Your task to perform on an android device: add a label to a message in the gmail app Image 0: 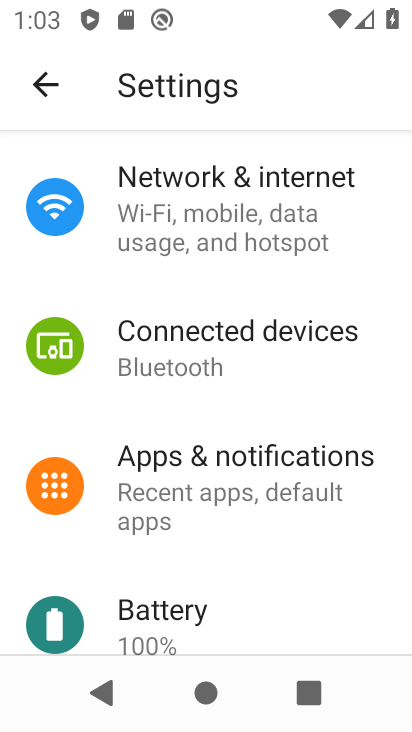
Step 0: press home button
Your task to perform on an android device: add a label to a message in the gmail app Image 1: 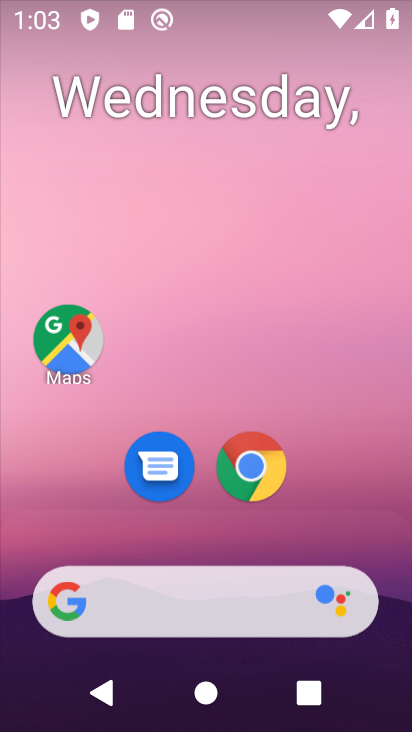
Step 1: drag from (279, 524) to (355, 33)
Your task to perform on an android device: add a label to a message in the gmail app Image 2: 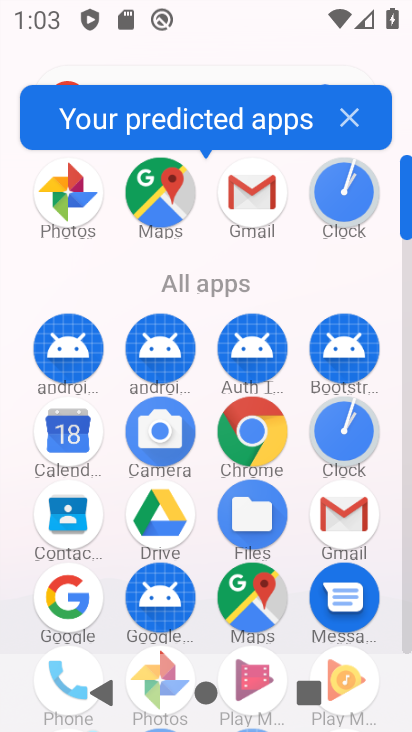
Step 2: click (355, 512)
Your task to perform on an android device: add a label to a message in the gmail app Image 3: 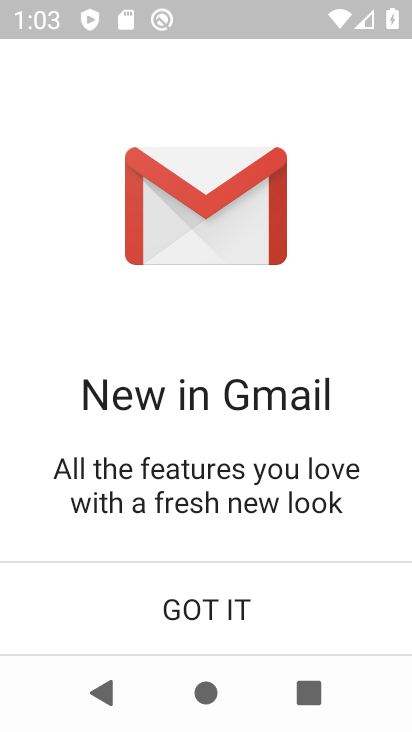
Step 3: click (215, 617)
Your task to perform on an android device: add a label to a message in the gmail app Image 4: 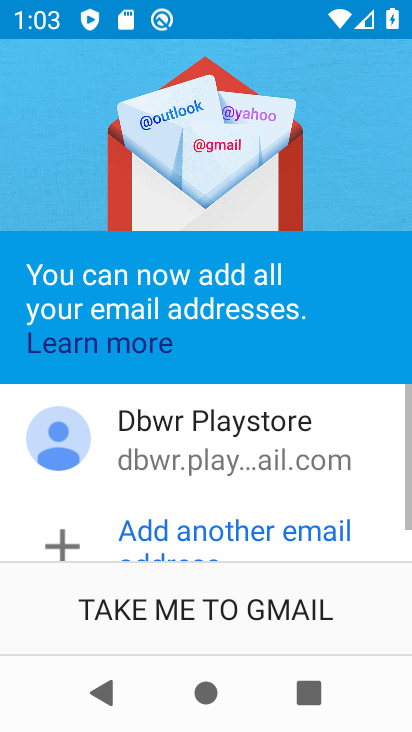
Step 4: click (219, 612)
Your task to perform on an android device: add a label to a message in the gmail app Image 5: 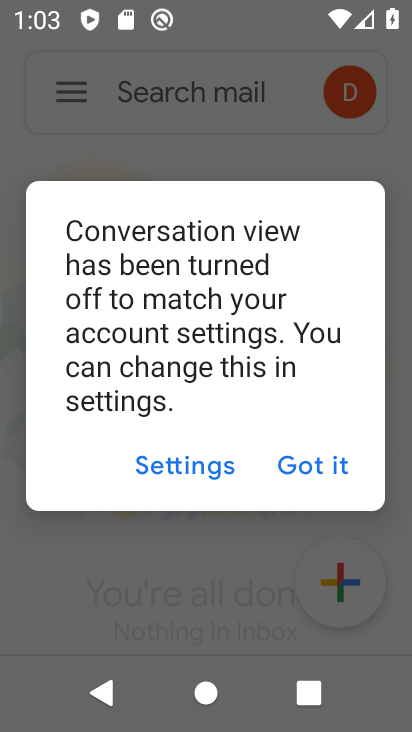
Step 5: click (318, 467)
Your task to perform on an android device: add a label to a message in the gmail app Image 6: 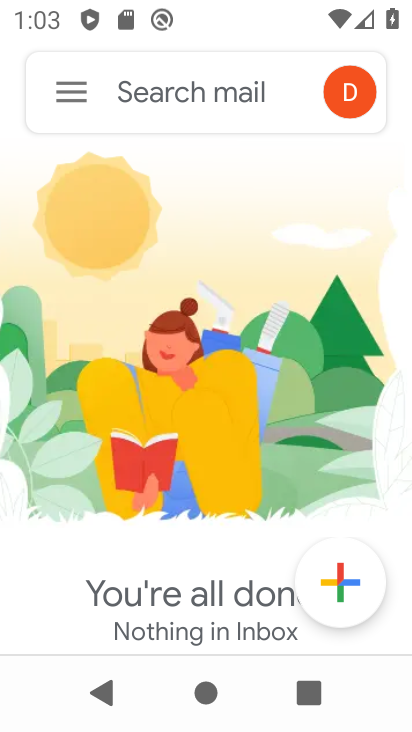
Step 6: click (65, 100)
Your task to perform on an android device: add a label to a message in the gmail app Image 7: 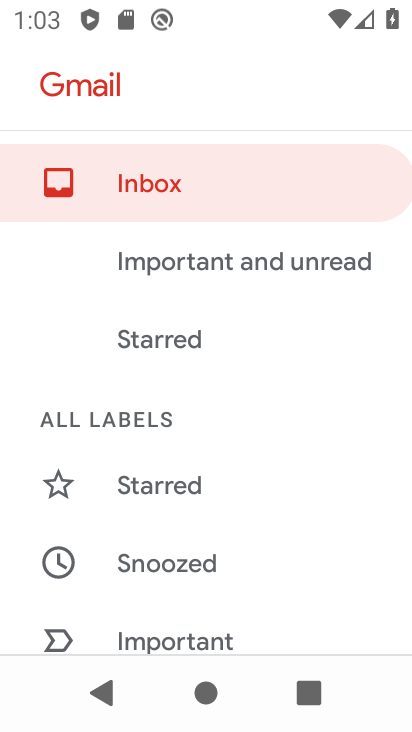
Step 7: drag from (186, 534) to (173, 116)
Your task to perform on an android device: add a label to a message in the gmail app Image 8: 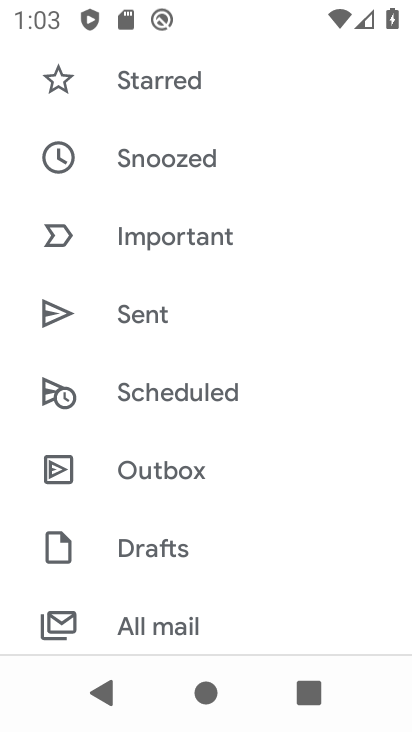
Step 8: click (191, 620)
Your task to perform on an android device: add a label to a message in the gmail app Image 9: 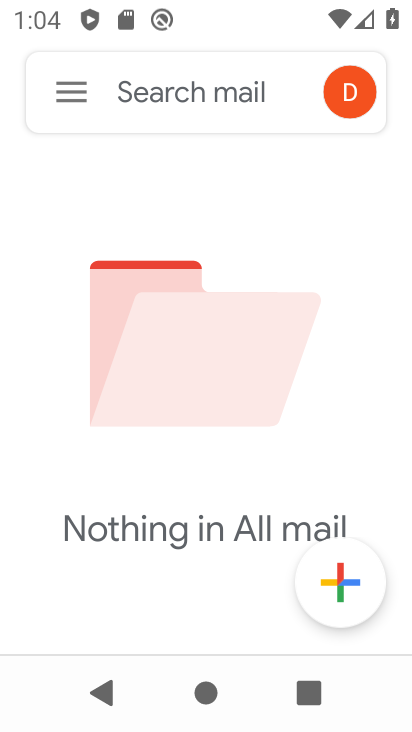
Step 9: task complete